Your task to perform on an android device: Open calendar and show me the first week of next month Image 0: 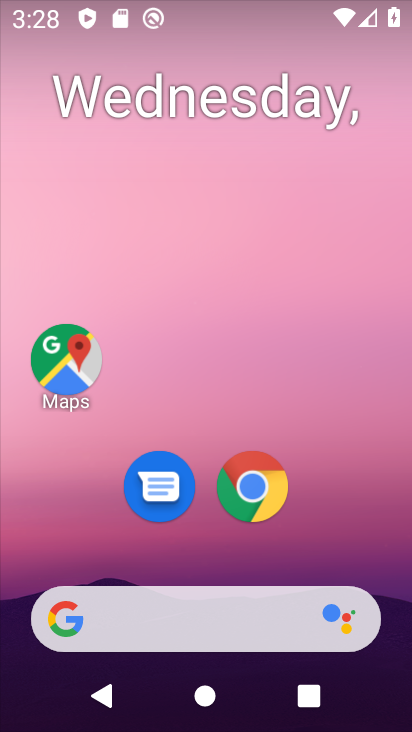
Step 0: drag from (210, 575) to (223, 92)
Your task to perform on an android device: Open calendar and show me the first week of next month Image 1: 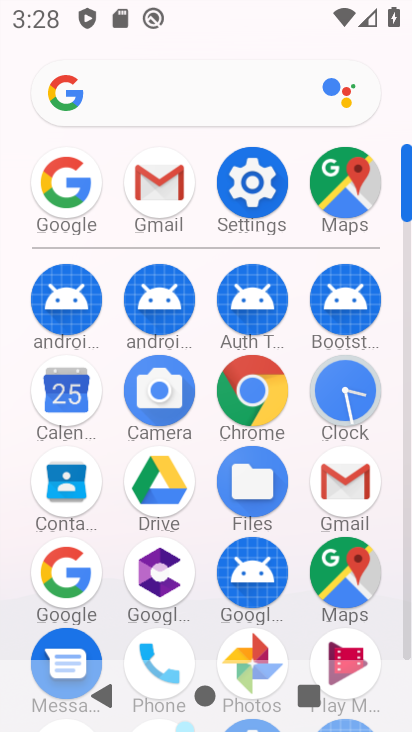
Step 1: click (76, 385)
Your task to perform on an android device: Open calendar and show me the first week of next month Image 2: 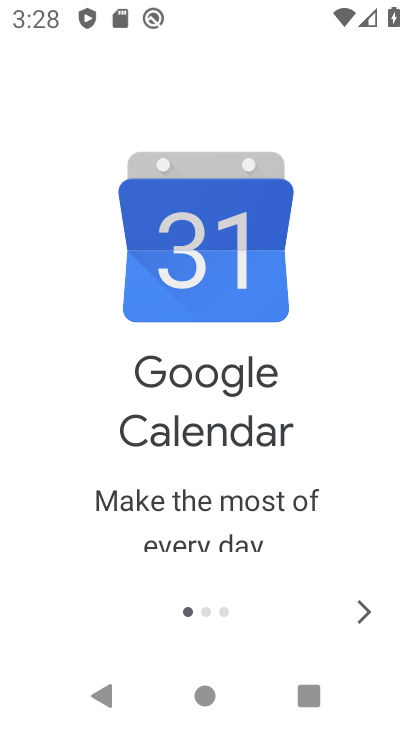
Step 2: click (361, 606)
Your task to perform on an android device: Open calendar and show me the first week of next month Image 3: 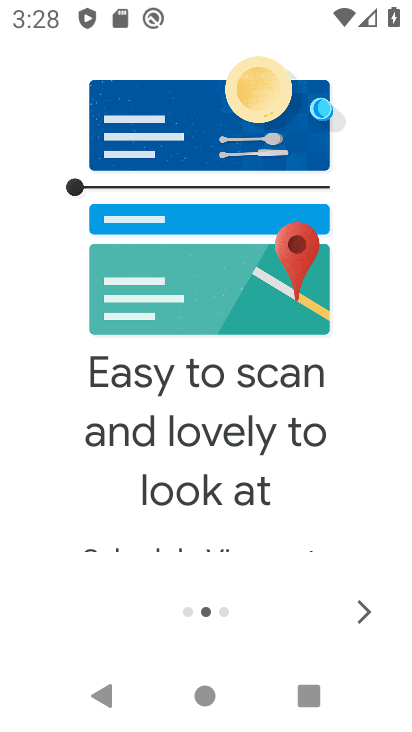
Step 3: click (361, 606)
Your task to perform on an android device: Open calendar and show me the first week of next month Image 4: 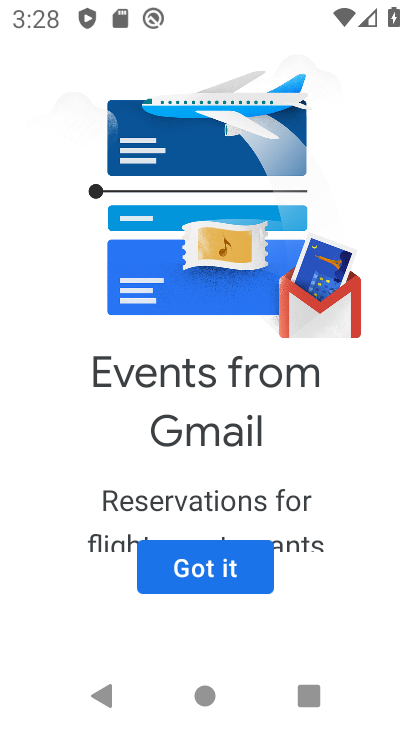
Step 4: click (193, 569)
Your task to perform on an android device: Open calendar and show me the first week of next month Image 5: 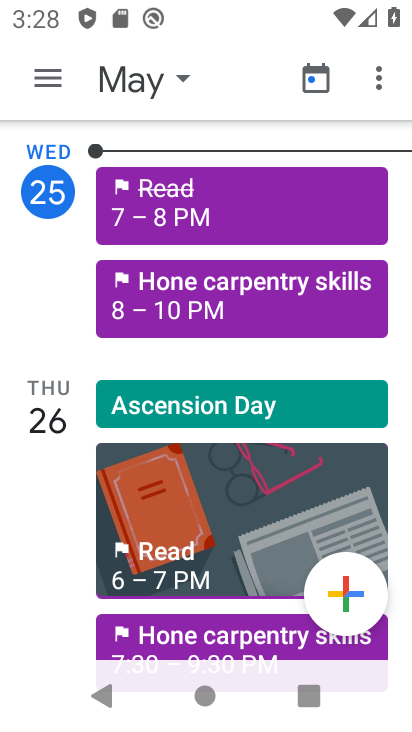
Step 5: click (170, 75)
Your task to perform on an android device: Open calendar and show me the first week of next month Image 6: 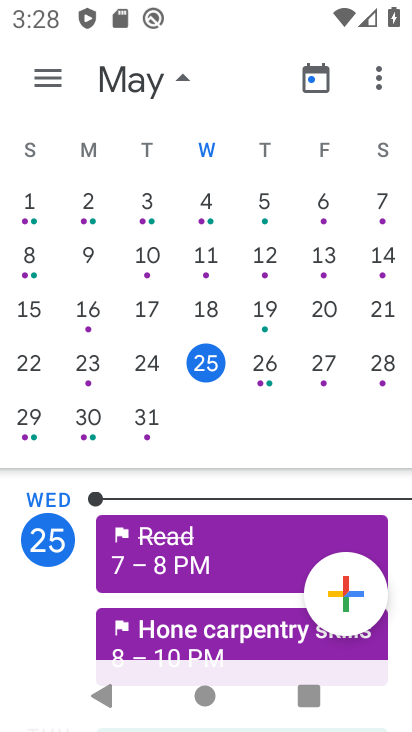
Step 6: task complete